Your task to perform on an android device: read, delete, or share a saved page in the chrome app Image 0: 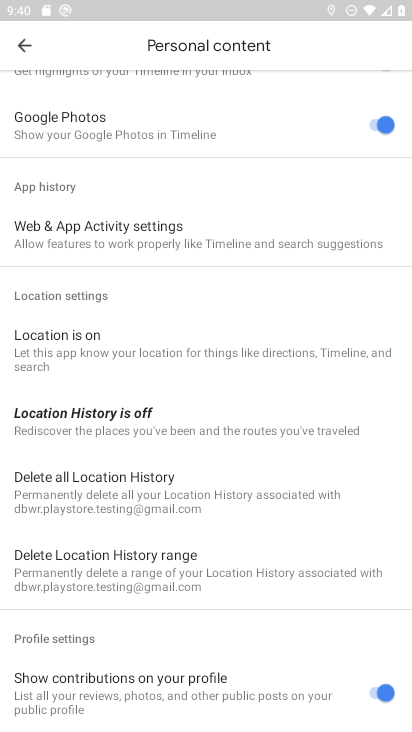
Step 0: press home button
Your task to perform on an android device: read, delete, or share a saved page in the chrome app Image 1: 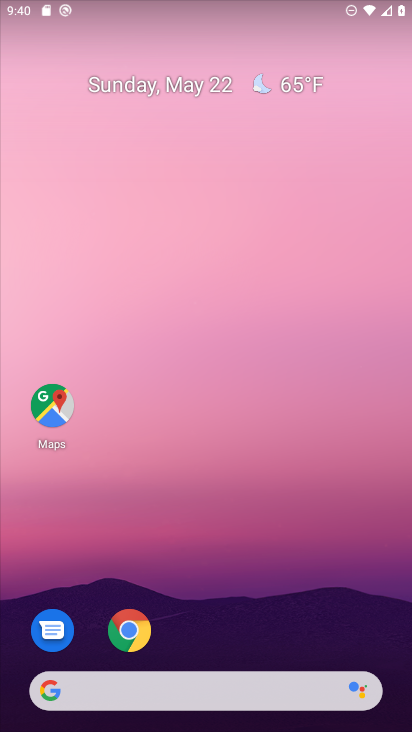
Step 1: click (135, 642)
Your task to perform on an android device: read, delete, or share a saved page in the chrome app Image 2: 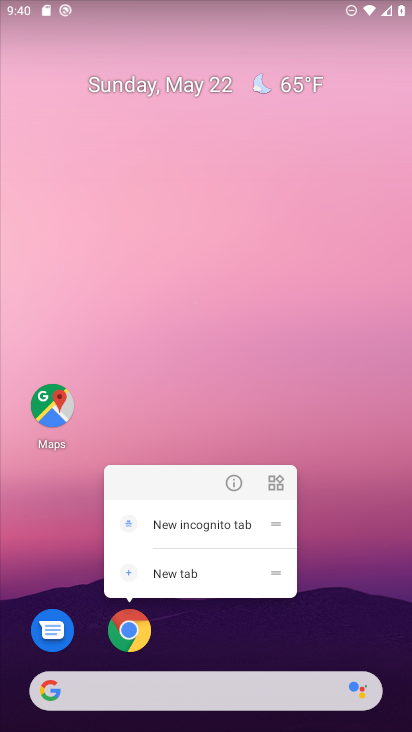
Step 2: click (130, 640)
Your task to perform on an android device: read, delete, or share a saved page in the chrome app Image 3: 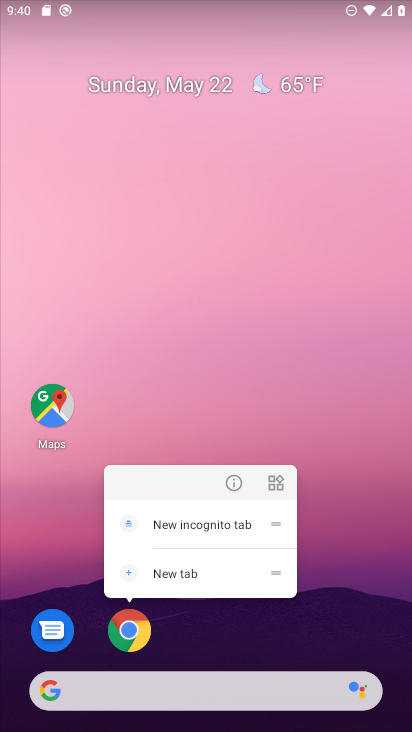
Step 3: click (133, 628)
Your task to perform on an android device: read, delete, or share a saved page in the chrome app Image 4: 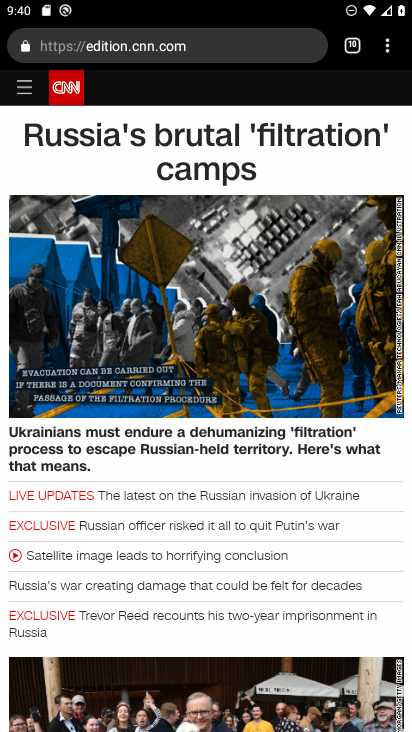
Step 4: drag from (389, 48) to (246, 299)
Your task to perform on an android device: read, delete, or share a saved page in the chrome app Image 5: 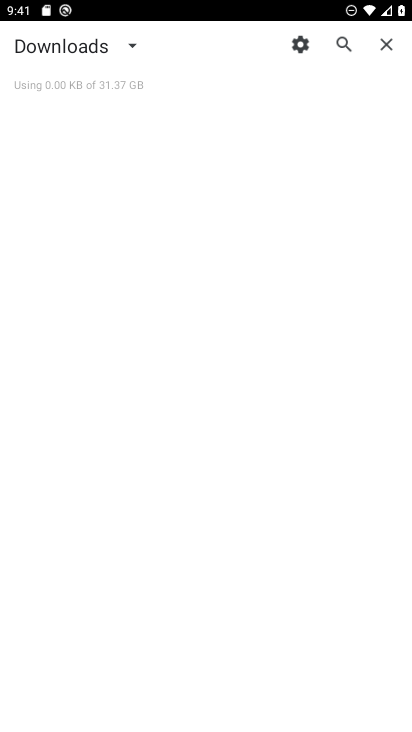
Step 5: click (127, 42)
Your task to perform on an android device: read, delete, or share a saved page in the chrome app Image 6: 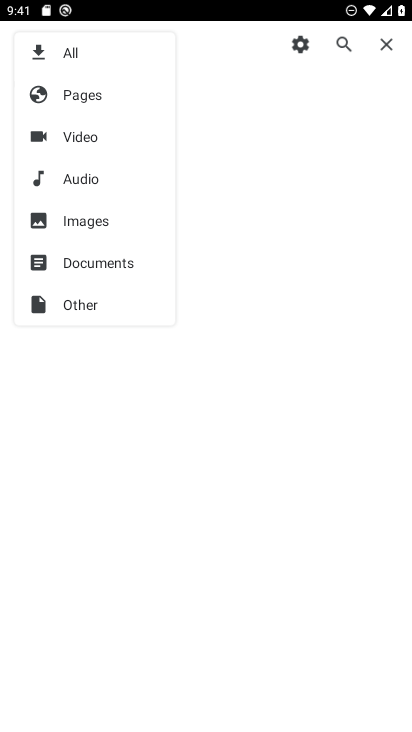
Step 6: click (87, 97)
Your task to perform on an android device: read, delete, or share a saved page in the chrome app Image 7: 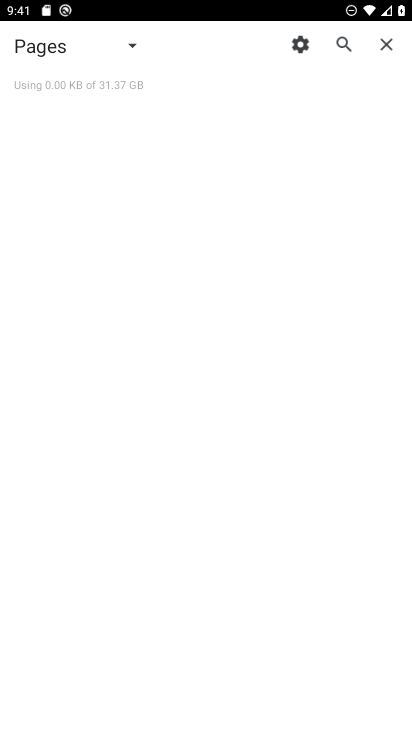
Step 7: task complete